Your task to perform on an android device: Open Amazon Image 0: 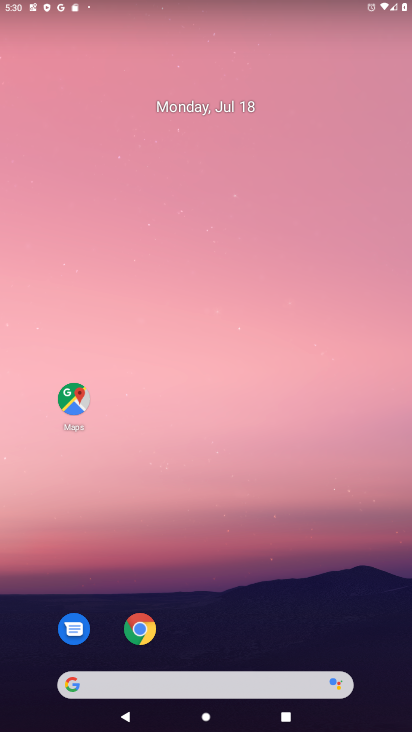
Step 0: drag from (270, 130) to (285, 46)
Your task to perform on an android device: Open Amazon Image 1: 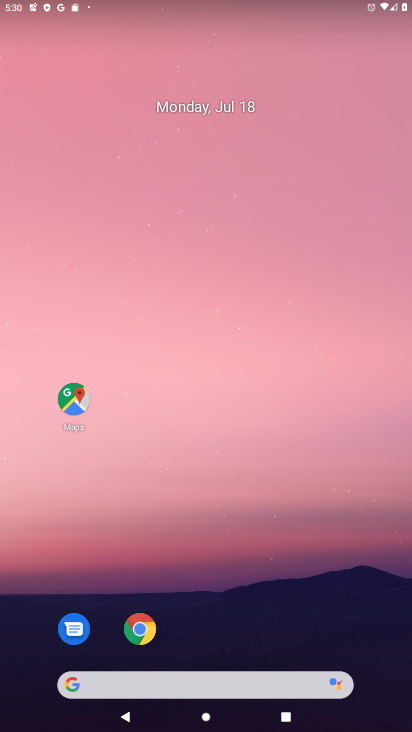
Step 1: drag from (245, 546) to (220, 41)
Your task to perform on an android device: Open Amazon Image 2: 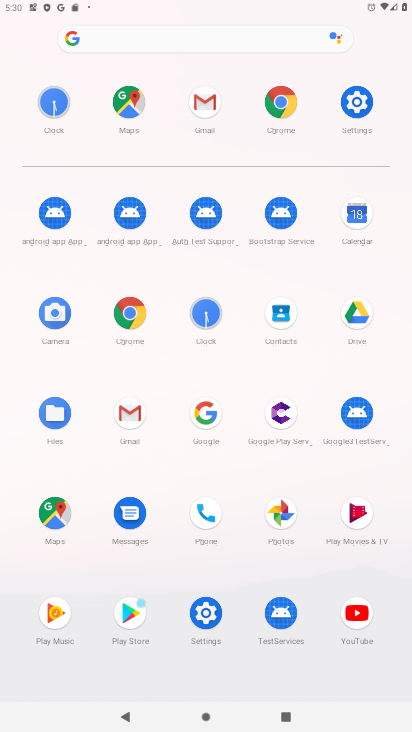
Step 2: click (281, 93)
Your task to perform on an android device: Open Amazon Image 3: 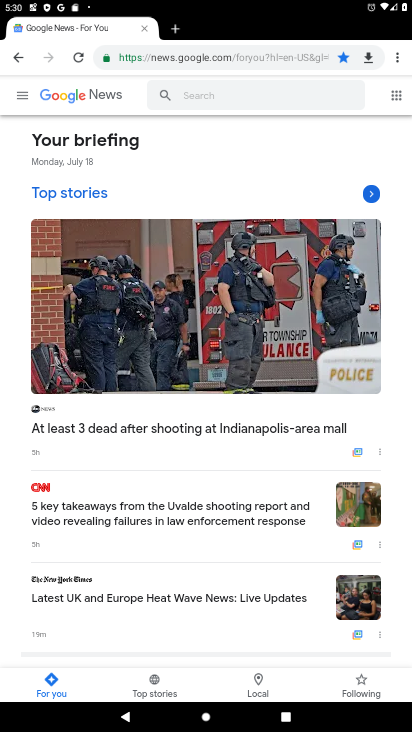
Step 3: click (185, 58)
Your task to perform on an android device: Open Amazon Image 4: 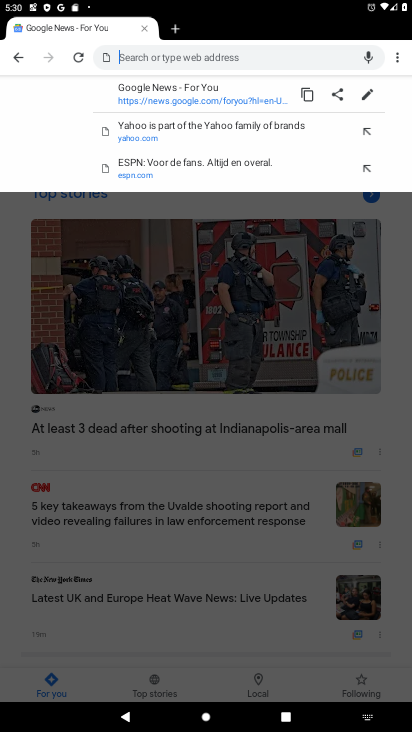
Step 4: type "amazon"
Your task to perform on an android device: Open Amazon Image 5: 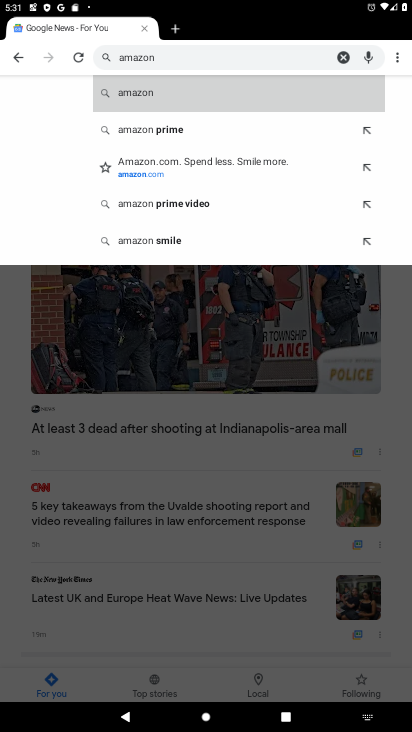
Step 5: click (150, 174)
Your task to perform on an android device: Open Amazon Image 6: 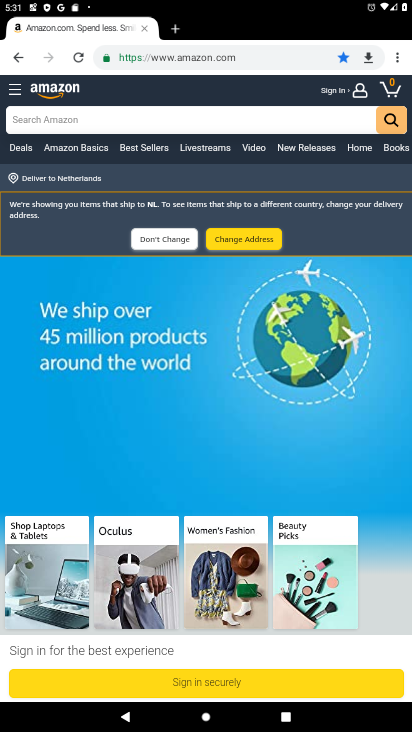
Step 6: task complete